Your task to perform on an android device: Open ESPN.com Image 0: 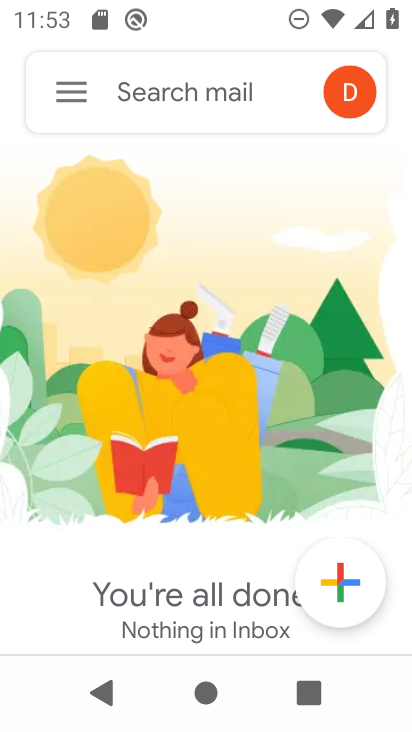
Step 0: press home button
Your task to perform on an android device: Open ESPN.com Image 1: 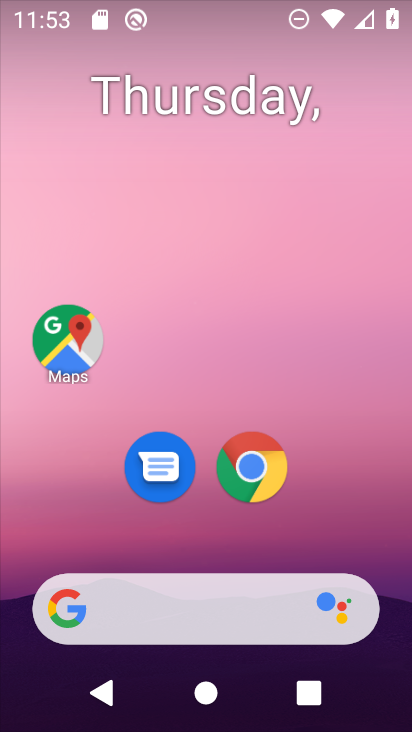
Step 1: click (256, 468)
Your task to perform on an android device: Open ESPN.com Image 2: 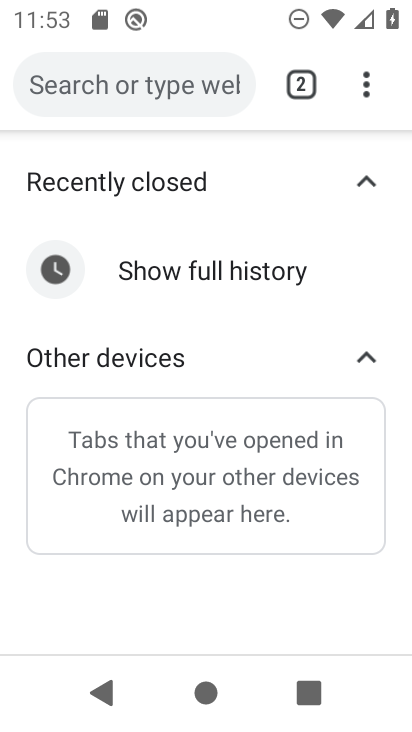
Step 2: click (65, 86)
Your task to perform on an android device: Open ESPN.com Image 3: 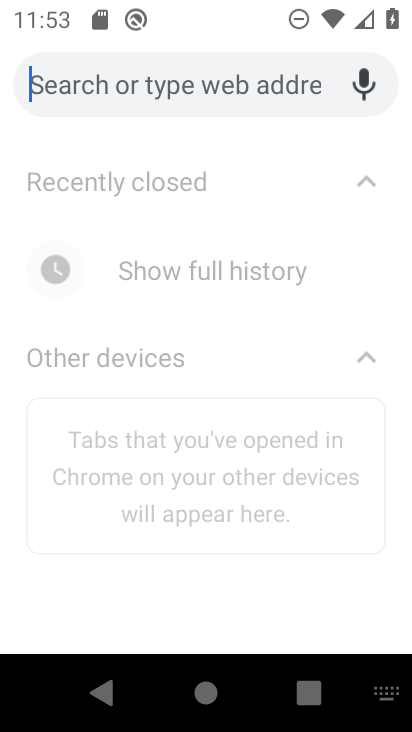
Step 3: type "espn.com"
Your task to perform on an android device: Open ESPN.com Image 4: 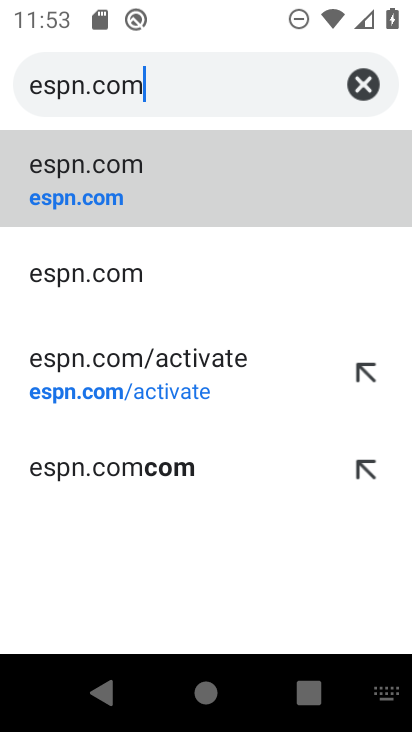
Step 4: click (91, 201)
Your task to perform on an android device: Open ESPN.com Image 5: 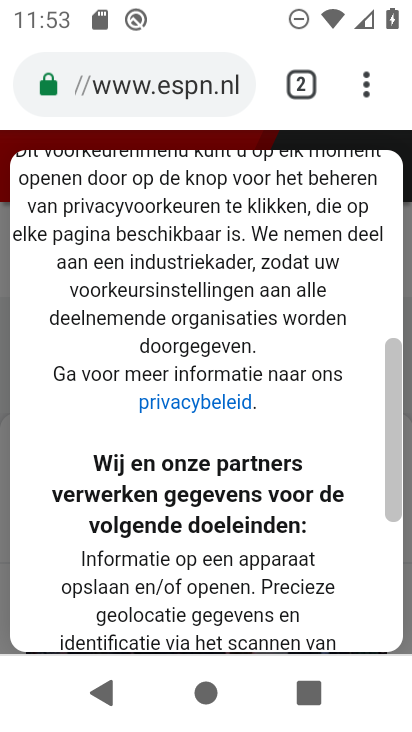
Step 5: task complete